Your task to perform on an android device: set the timer Image 0: 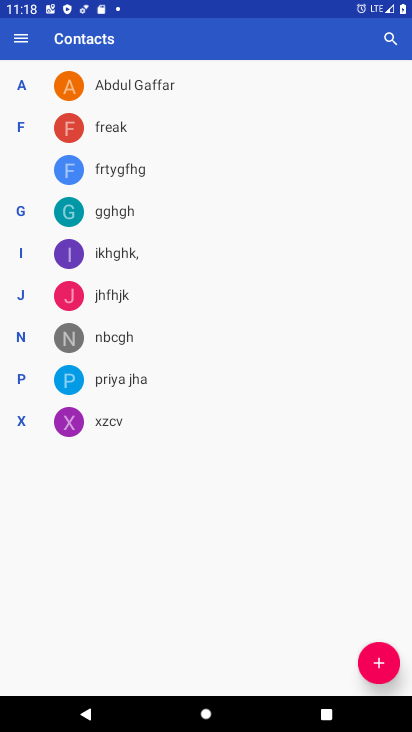
Step 0: press home button
Your task to perform on an android device: set the timer Image 1: 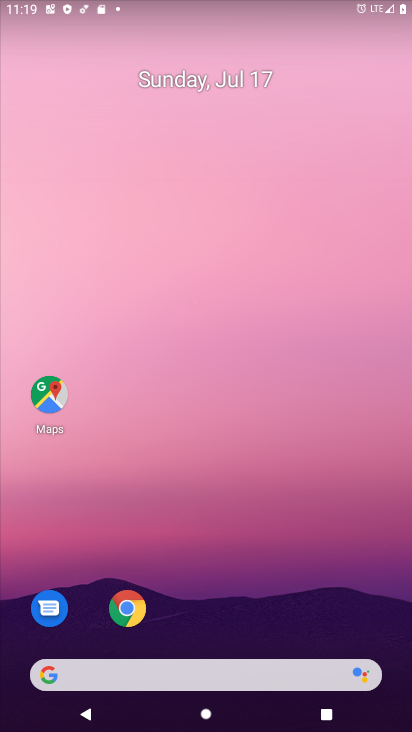
Step 1: drag from (202, 645) to (374, 12)
Your task to perform on an android device: set the timer Image 2: 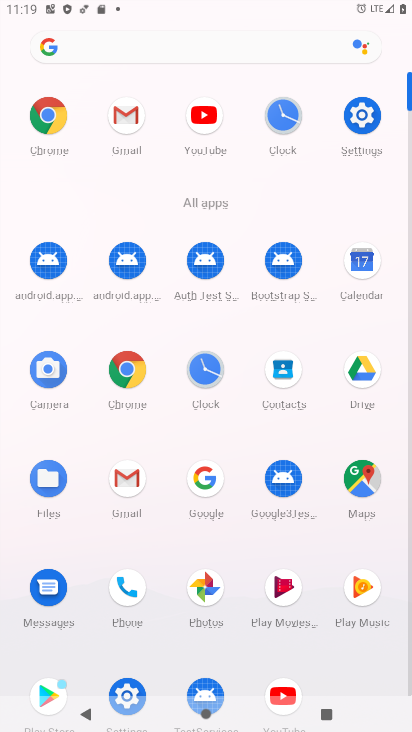
Step 2: click (215, 371)
Your task to perform on an android device: set the timer Image 3: 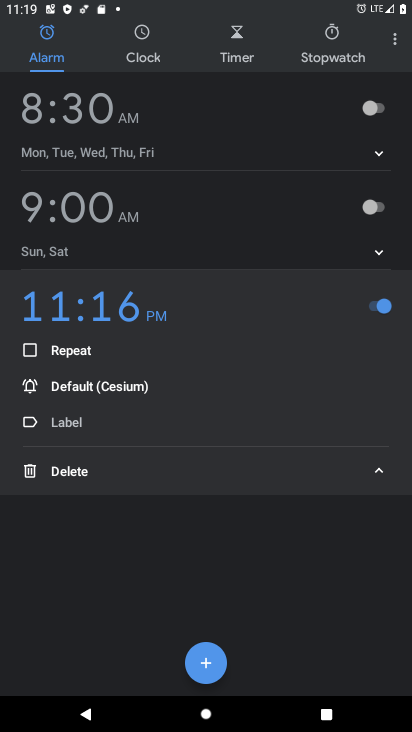
Step 3: click (230, 32)
Your task to perform on an android device: set the timer Image 4: 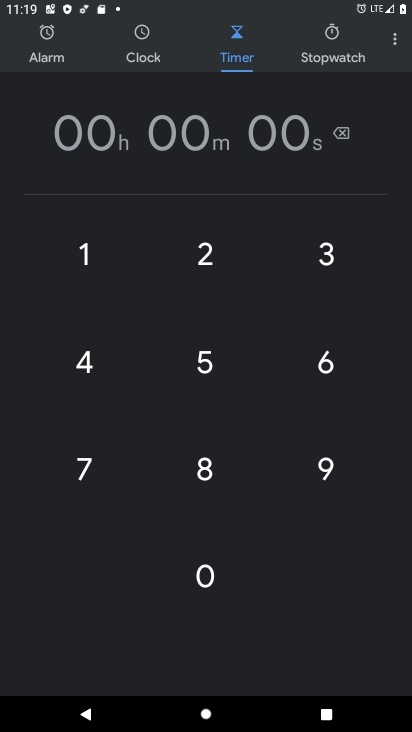
Step 4: click (217, 263)
Your task to perform on an android device: set the timer Image 5: 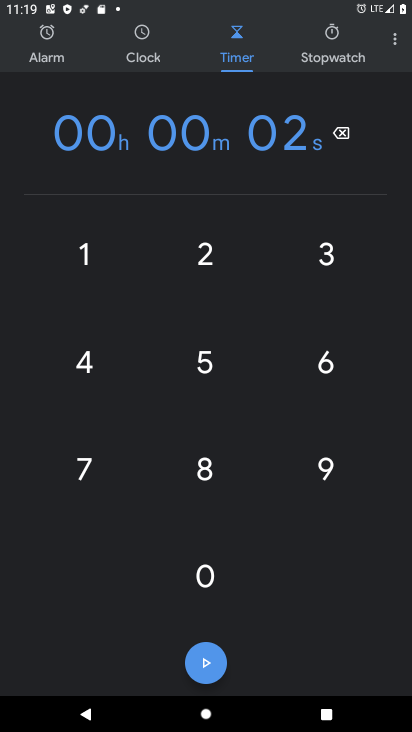
Step 5: click (222, 341)
Your task to perform on an android device: set the timer Image 6: 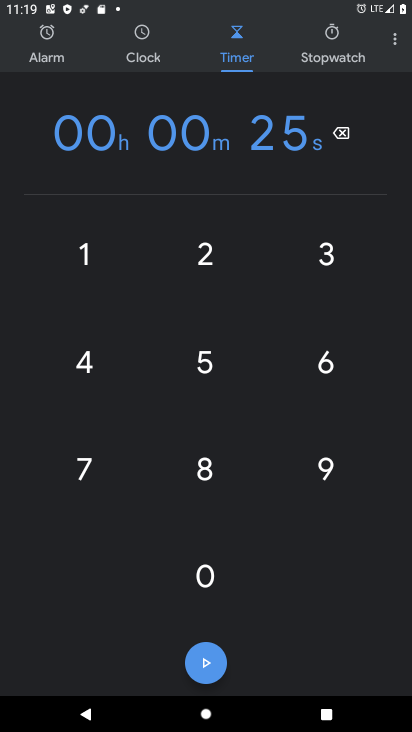
Step 6: click (209, 682)
Your task to perform on an android device: set the timer Image 7: 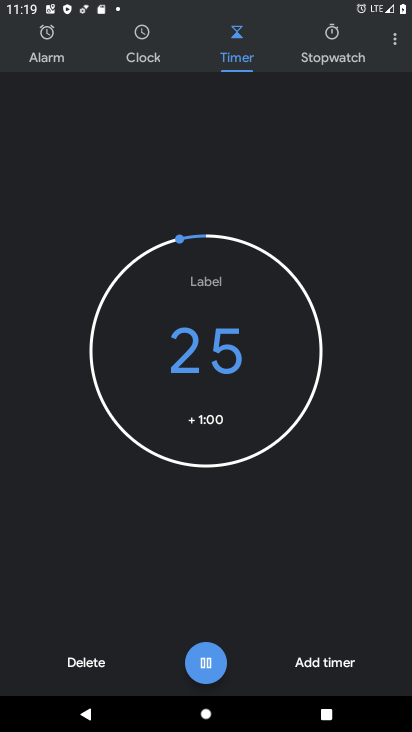
Step 7: task complete